Your task to perform on an android device: Open ESPN.com Image 0: 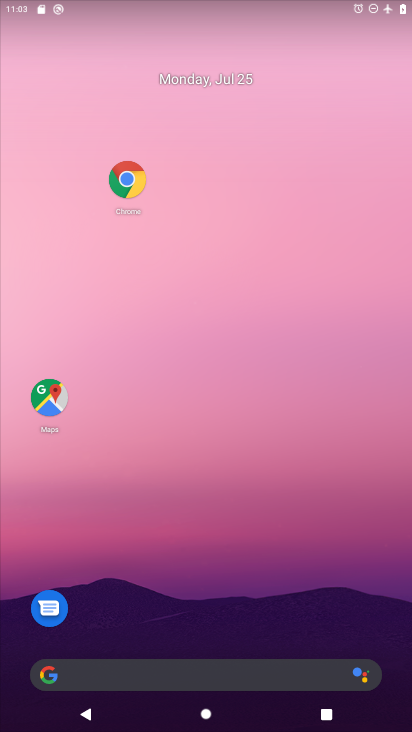
Step 0: click (189, 670)
Your task to perform on an android device: Open ESPN.com Image 1: 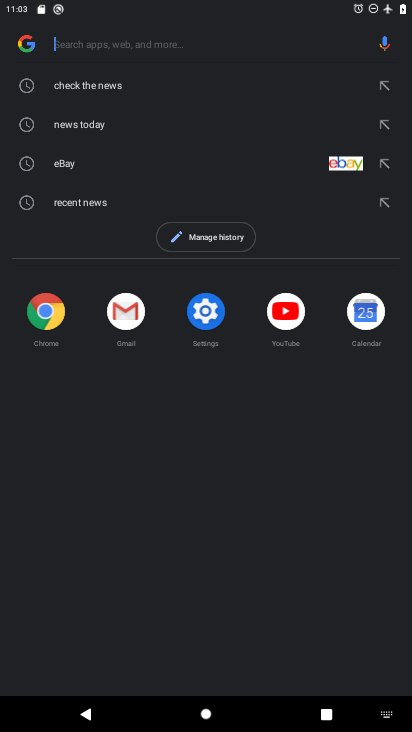
Step 1: type "espn.com"
Your task to perform on an android device: Open ESPN.com Image 2: 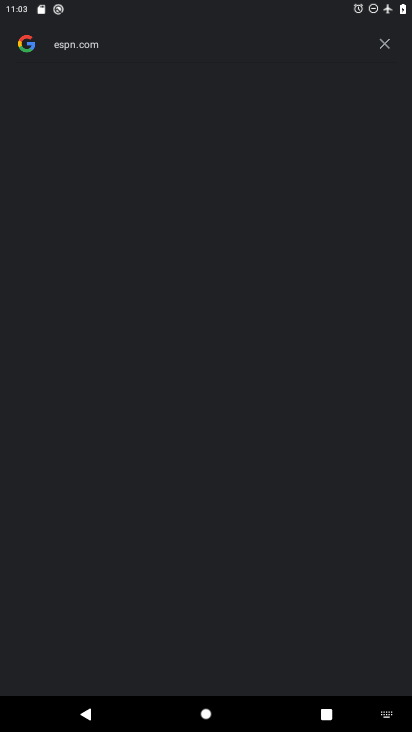
Step 2: press enter
Your task to perform on an android device: Open ESPN.com Image 3: 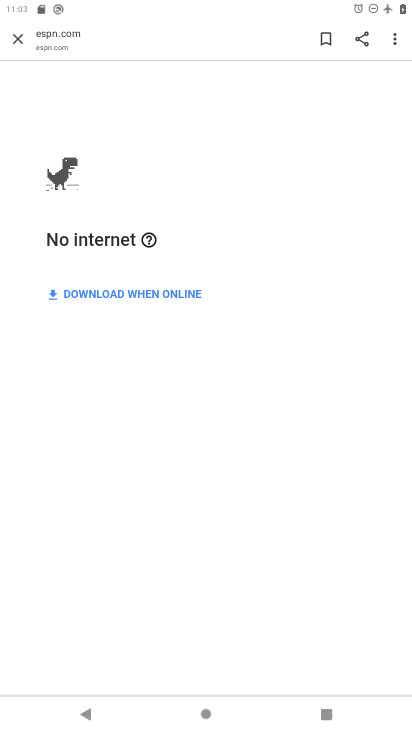
Step 3: task complete